Your task to perform on an android device: Clear all items from cart on costco.com. Image 0: 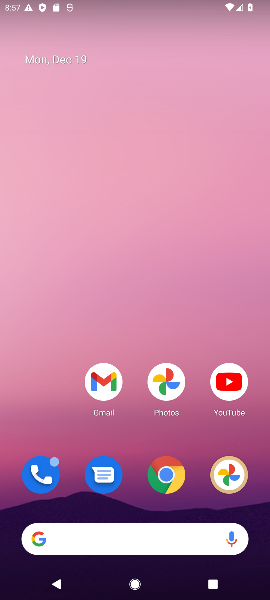
Step 0: click (165, 472)
Your task to perform on an android device: Clear all items from cart on costco.com. Image 1: 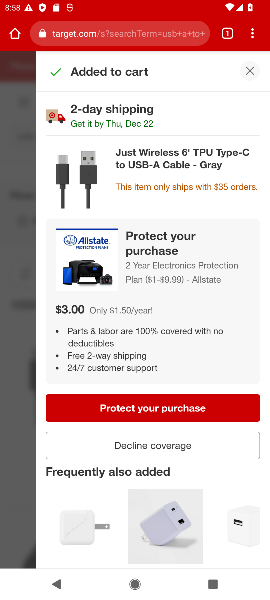
Step 1: click (91, 35)
Your task to perform on an android device: Clear all items from cart on costco.com. Image 2: 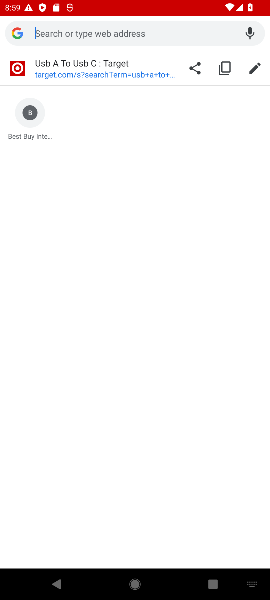
Step 2: type "costco"
Your task to perform on an android device: Clear all items from cart on costco.com. Image 3: 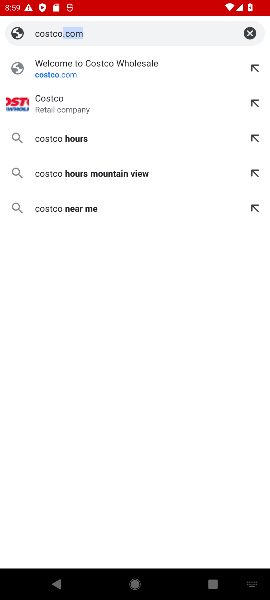
Step 3: click (127, 79)
Your task to perform on an android device: Clear all items from cart on costco.com. Image 4: 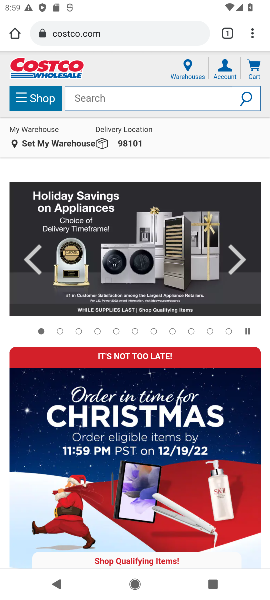
Step 4: click (255, 71)
Your task to perform on an android device: Clear all items from cart on costco.com. Image 5: 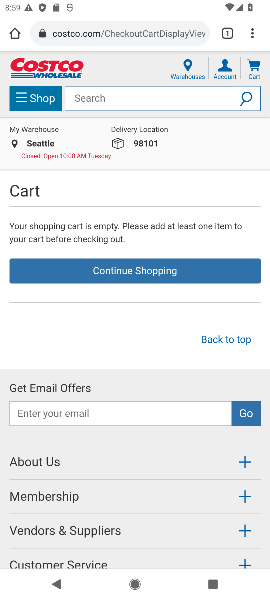
Step 5: task complete